Your task to perform on an android device: move a message to another label in the gmail app Image 0: 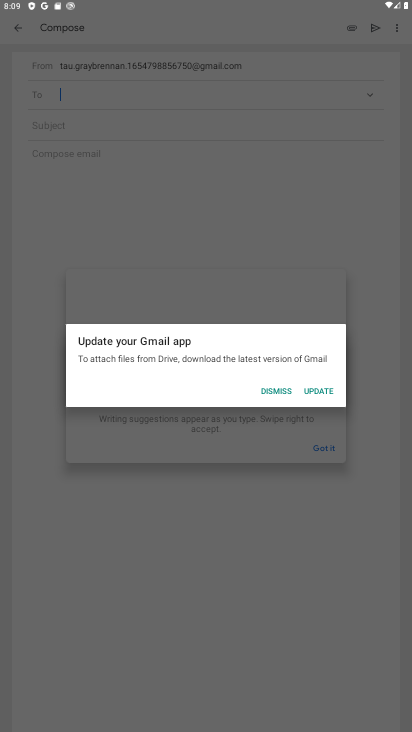
Step 0: click (301, 377)
Your task to perform on an android device: move a message to another label in the gmail app Image 1: 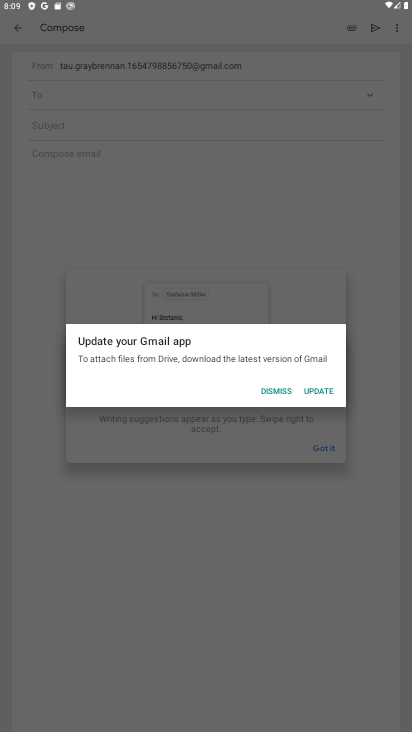
Step 1: click (324, 392)
Your task to perform on an android device: move a message to another label in the gmail app Image 2: 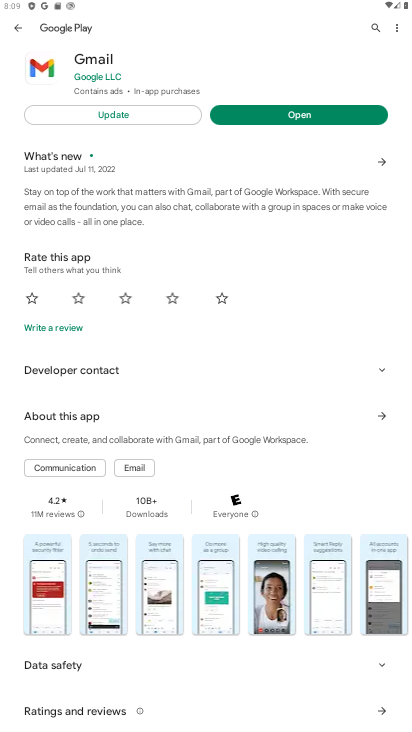
Step 2: click (107, 118)
Your task to perform on an android device: move a message to another label in the gmail app Image 3: 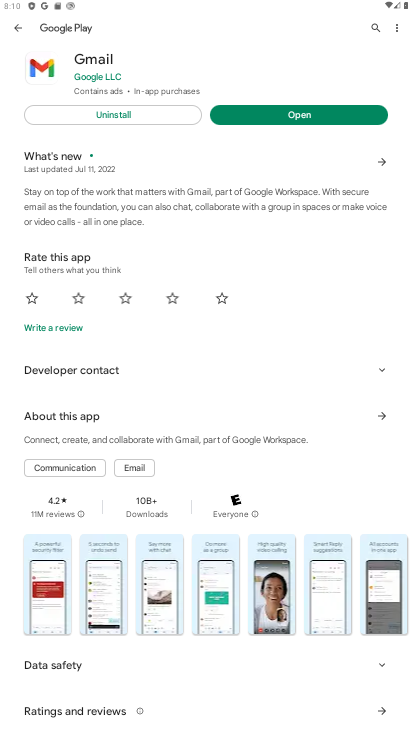
Step 3: click (279, 116)
Your task to perform on an android device: move a message to another label in the gmail app Image 4: 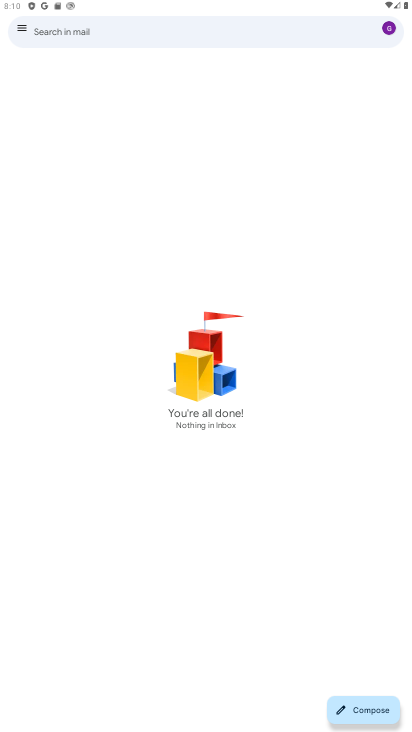
Step 4: task complete